Your task to perform on an android device: Show me productivity apps on the Play Store Image 0: 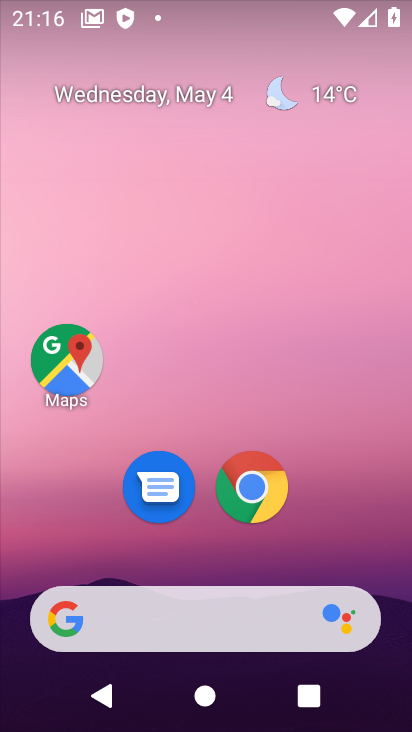
Step 0: drag from (176, 566) to (215, 187)
Your task to perform on an android device: Show me productivity apps on the Play Store Image 1: 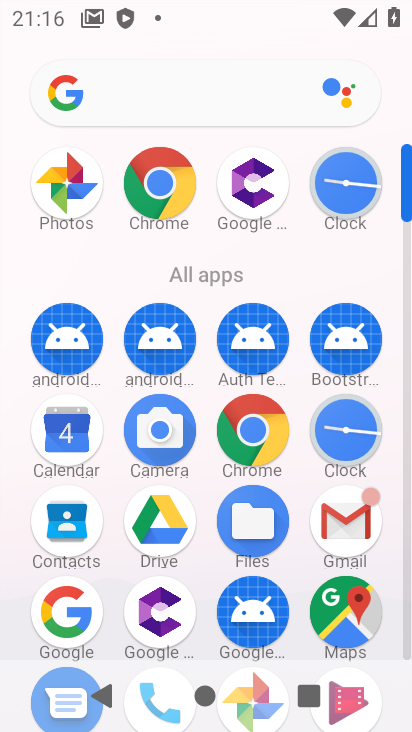
Step 1: drag from (204, 643) to (230, 127)
Your task to perform on an android device: Show me productivity apps on the Play Store Image 2: 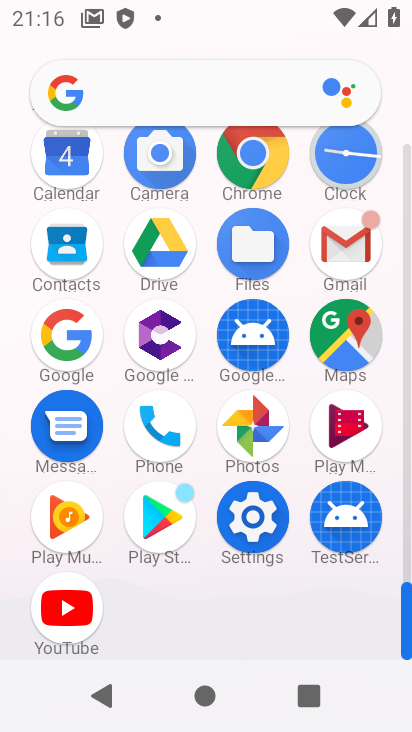
Step 2: click (153, 499)
Your task to perform on an android device: Show me productivity apps on the Play Store Image 3: 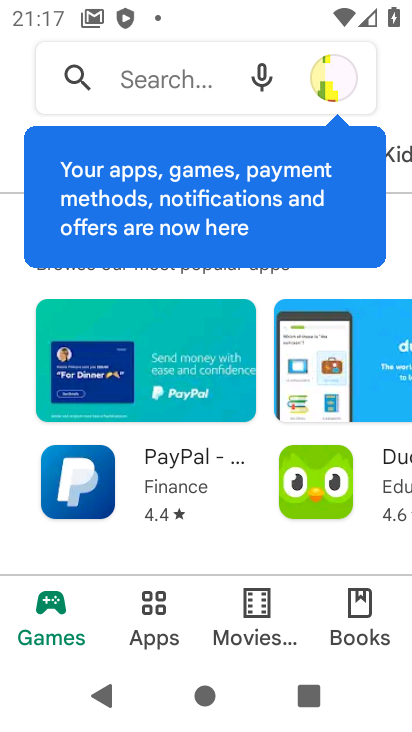
Step 3: click (158, 619)
Your task to perform on an android device: Show me productivity apps on the Play Store Image 4: 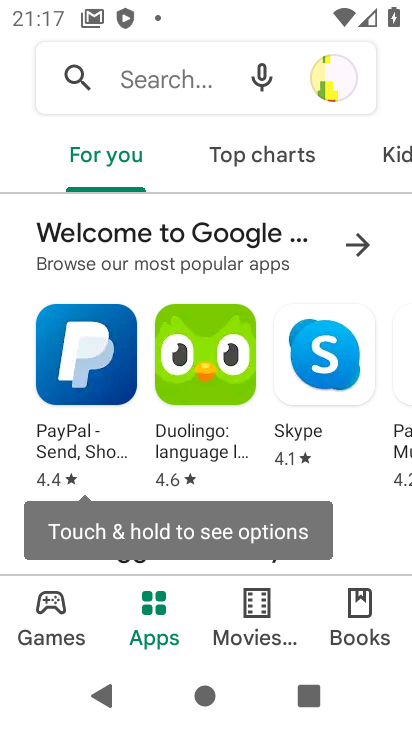
Step 4: click (282, 154)
Your task to perform on an android device: Show me productivity apps on the Play Store Image 5: 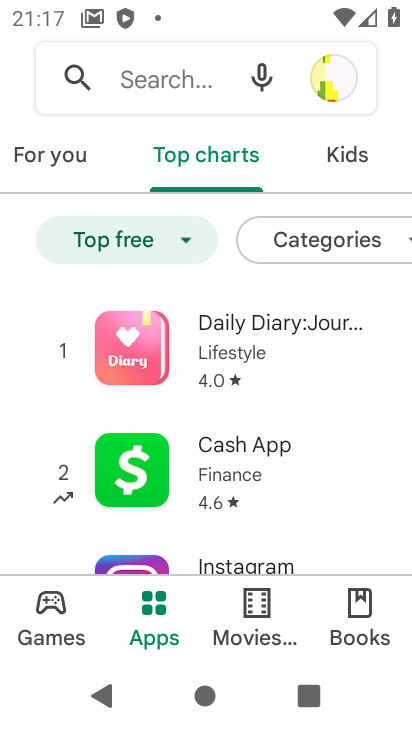
Step 5: click (66, 616)
Your task to perform on an android device: Show me productivity apps on the Play Store Image 6: 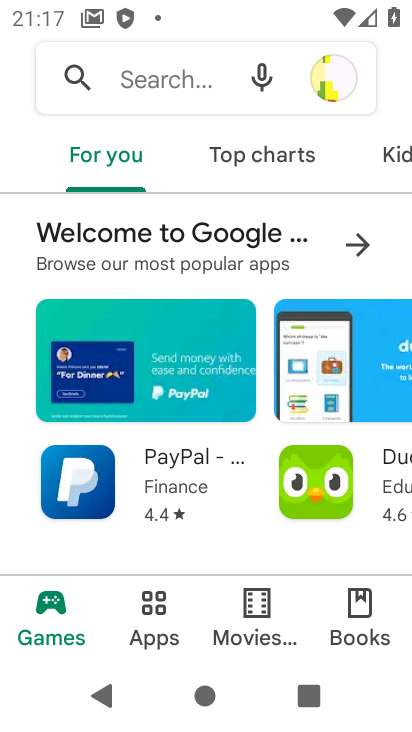
Step 6: click (245, 140)
Your task to perform on an android device: Show me productivity apps on the Play Store Image 7: 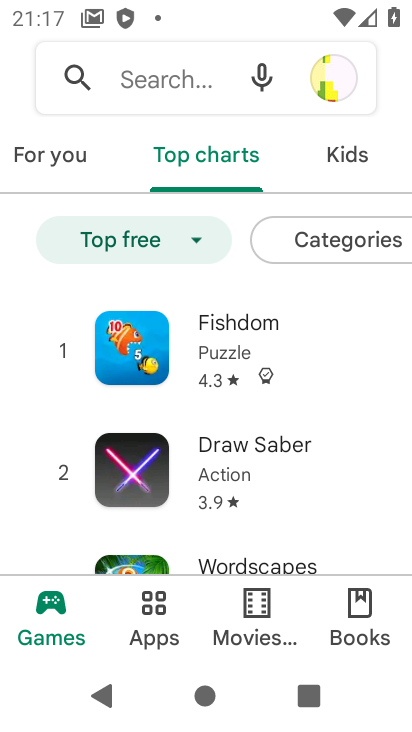
Step 7: click (355, 145)
Your task to perform on an android device: Show me productivity apps on the Play Store Image 8: 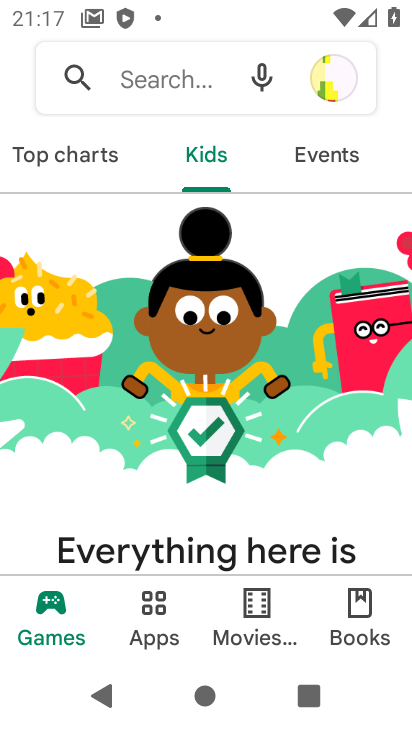
Step 8: click (355, 145)
Your task to perform on an android device: Show me productivity apps on the Play Store Image 9: 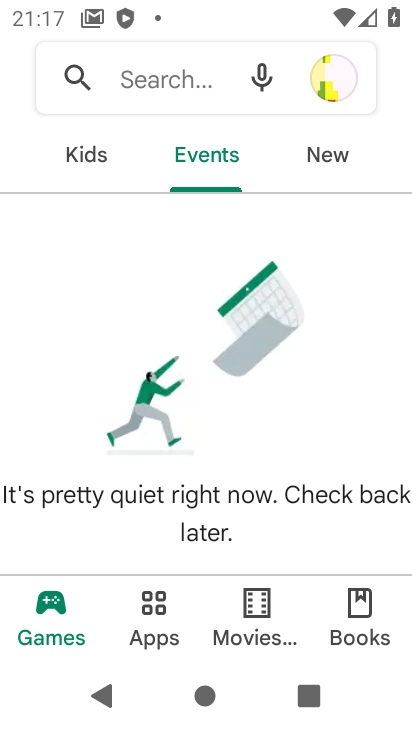
Step 9: click (157, 636)
Your task to perform on an android device: Show me productivity apps on the Play Store Image 10: 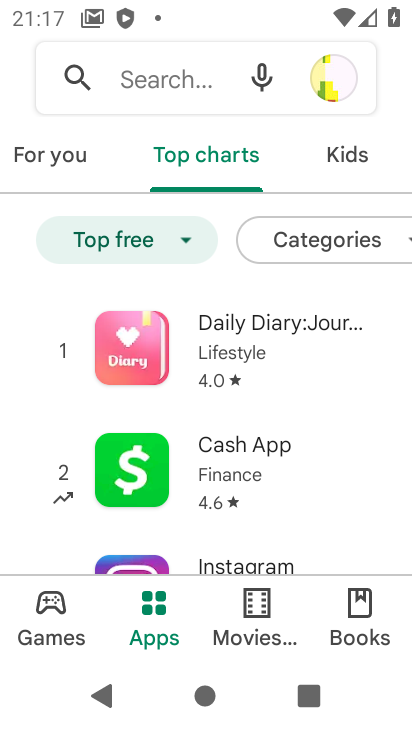
Step 10: click (299, 257)
Your task to perform on an android device: Show me productivity apps on the Play Store Image 11: 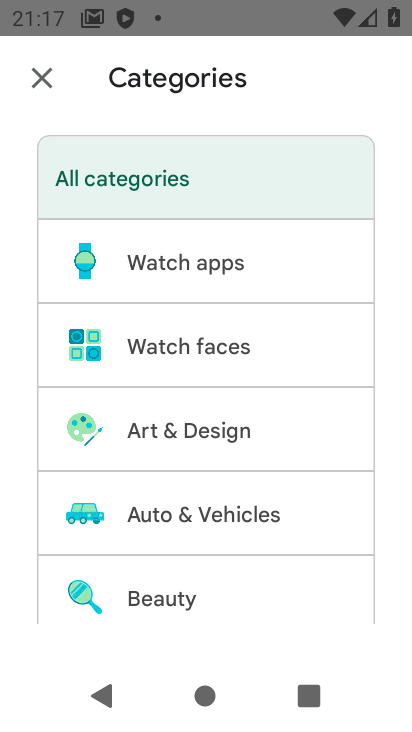
Step 11: drag from (163, 514) to (245, 137)
Your task to perform on an android device: Show me productivity apps on the Play Store Image 12: 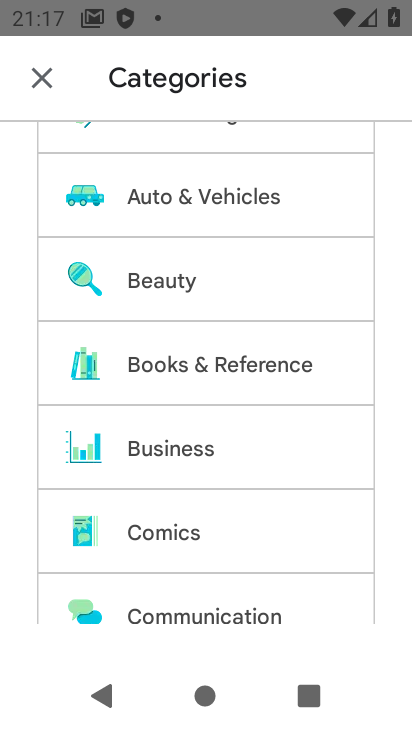
Step 12: drag from (140, 623) to (193, 124)
Your task to perform on an android device: Show me productivity apps on the Play Store Image 13: 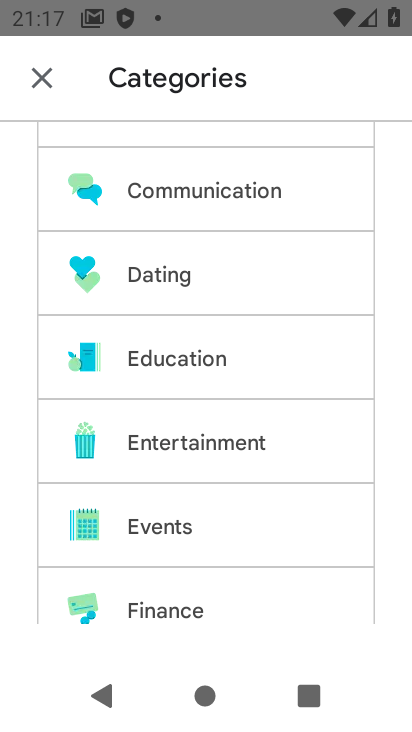
Step 13: drag from (94, 601) to (156, 301)
Your task to perform on an android device: Show me productivity apps on the Play Store Image 14: 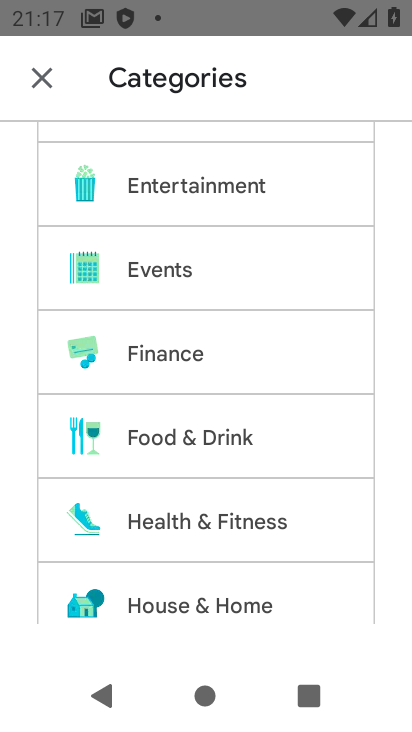
Step 14: drag from (129, 584) to (214, 239)
Your task to perform on an android device: Show me productivity apps on the Play Store Image 15: 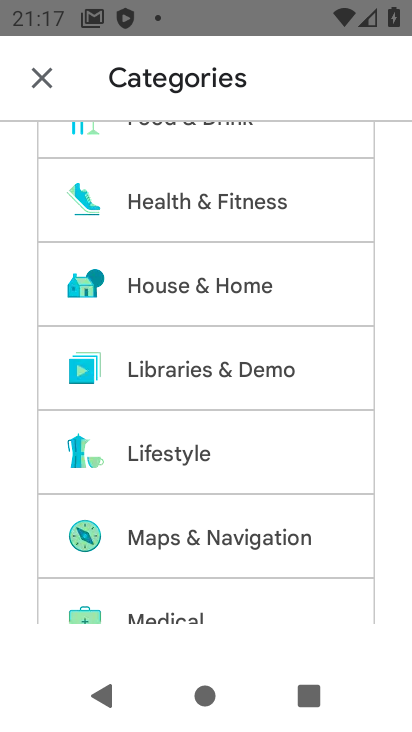
Step 15: drag from (220, 602) to (232, 175)
Your task to perform on an android device: Show me productivity apps on the Play Store Image 16: 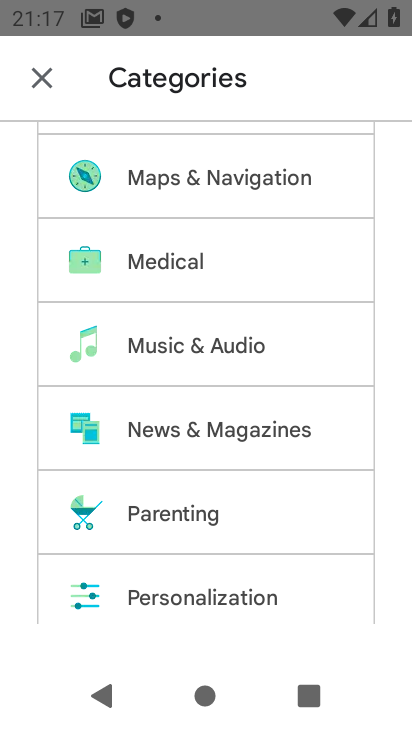
Step 16: drag from (144, 581) to (248, 223)
Your task to perform on an android device: Show me productivity apps on the Play Store Image 17: 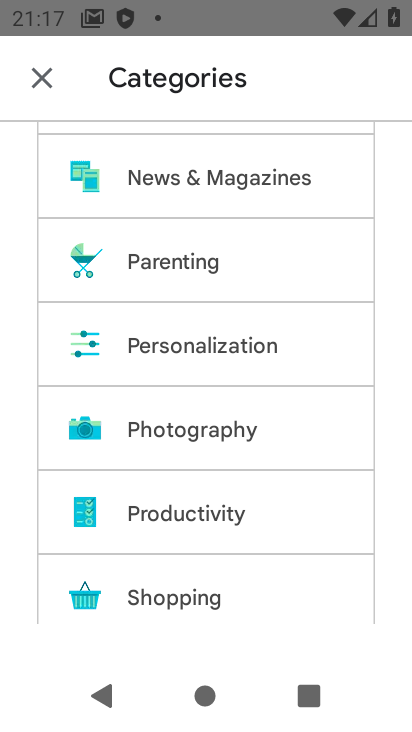
Step 17: click (192, 518)
Your task to perform on an android device: Show me productivity apps on the Play Store Image 18: 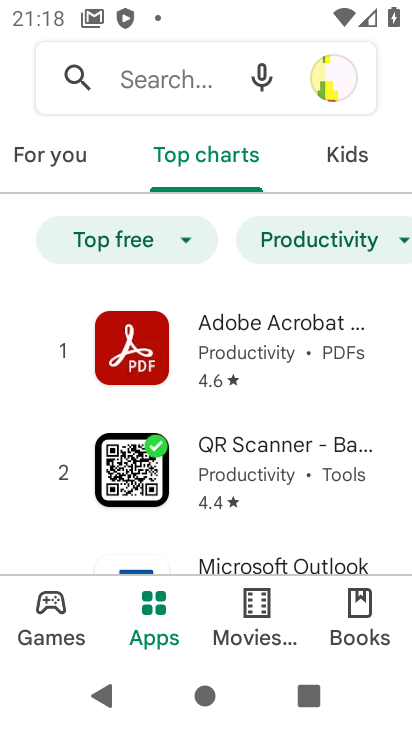
Step 18: click (310, 226)
Your task to perform on an android device: Show me productivity apps on the Play Store Image 19: 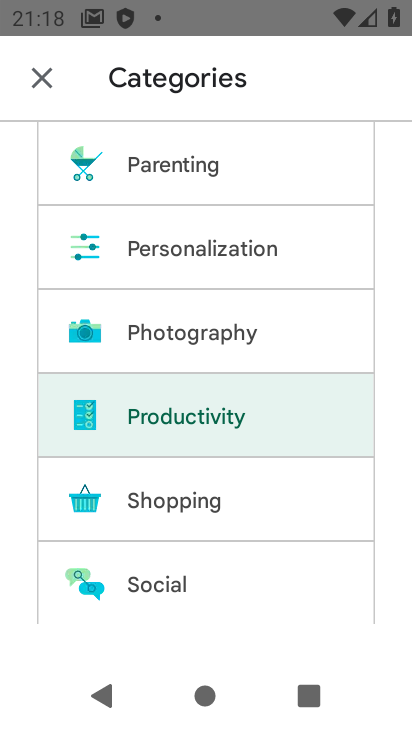
Step 19: click (171, 394)
Your task to perform on an android device: Show me productivity apps on the Play Store Image 20: 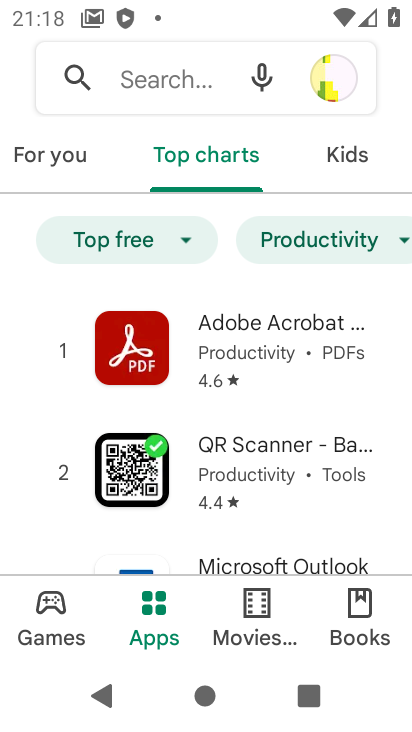
Step 20: task complete